Your task to perform on an android device: install app "Google Docs" Image 0: 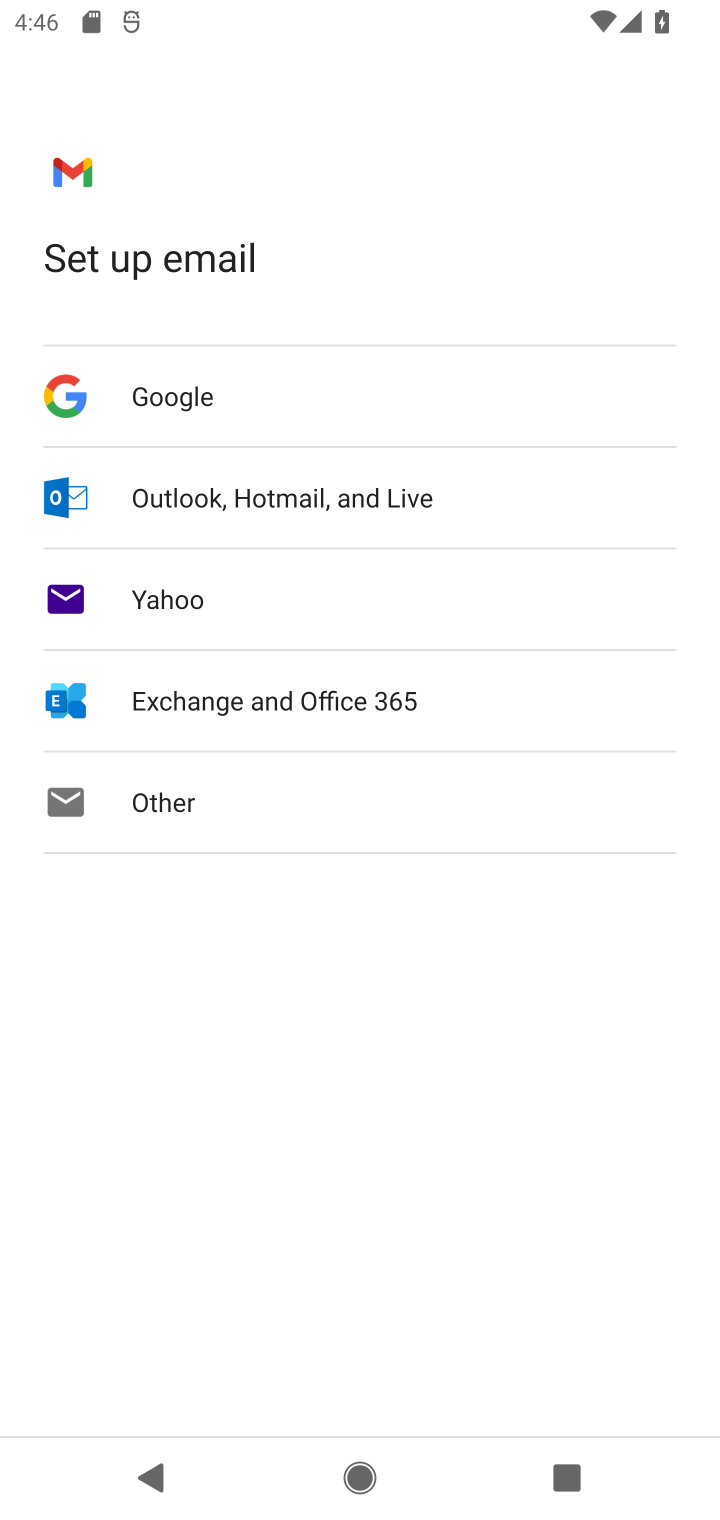
Step 0: press home button
Your task to perform on an android device: install app "Google Docs" Image 1: 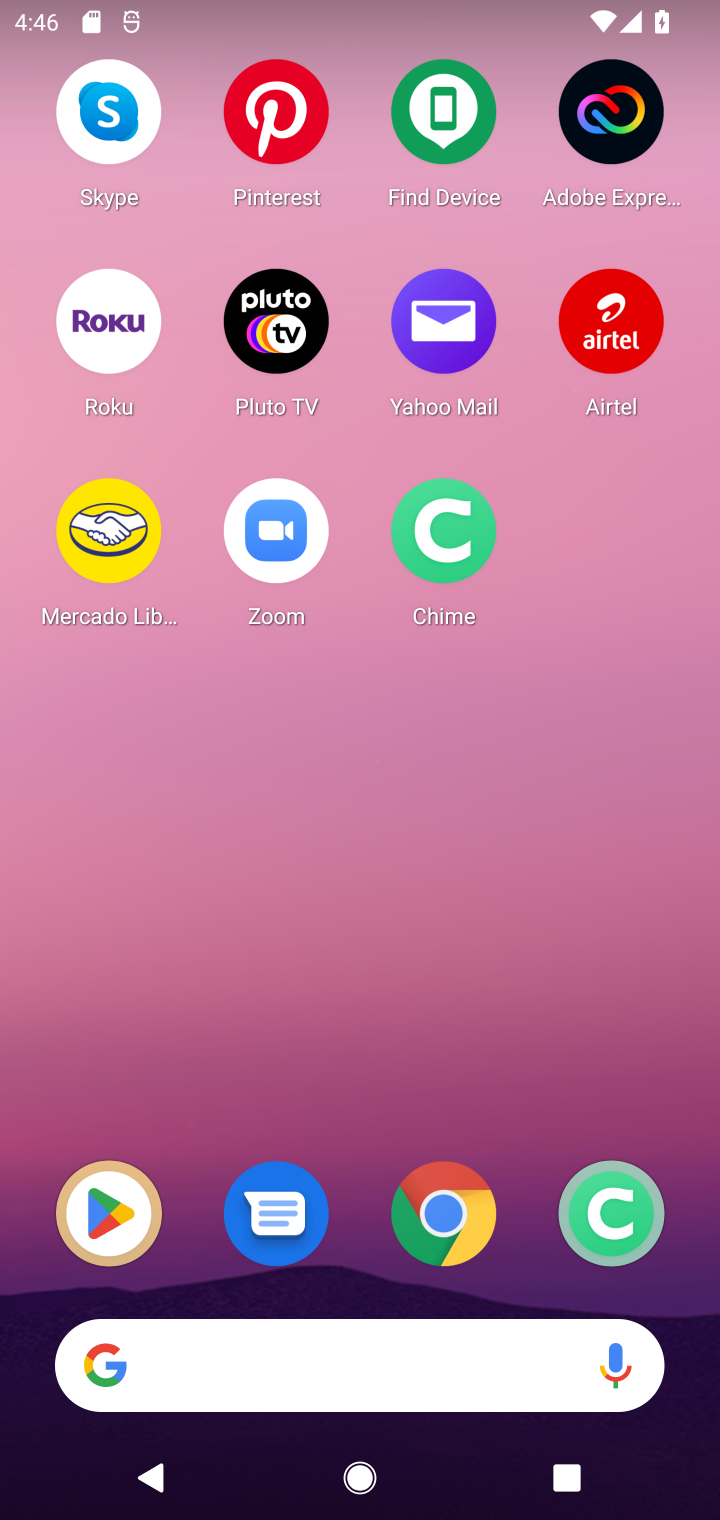
Step 1: drag from (485, 964) to (594, 0)
Your task to perform on an android device: install app "Google Docs" Image 2: 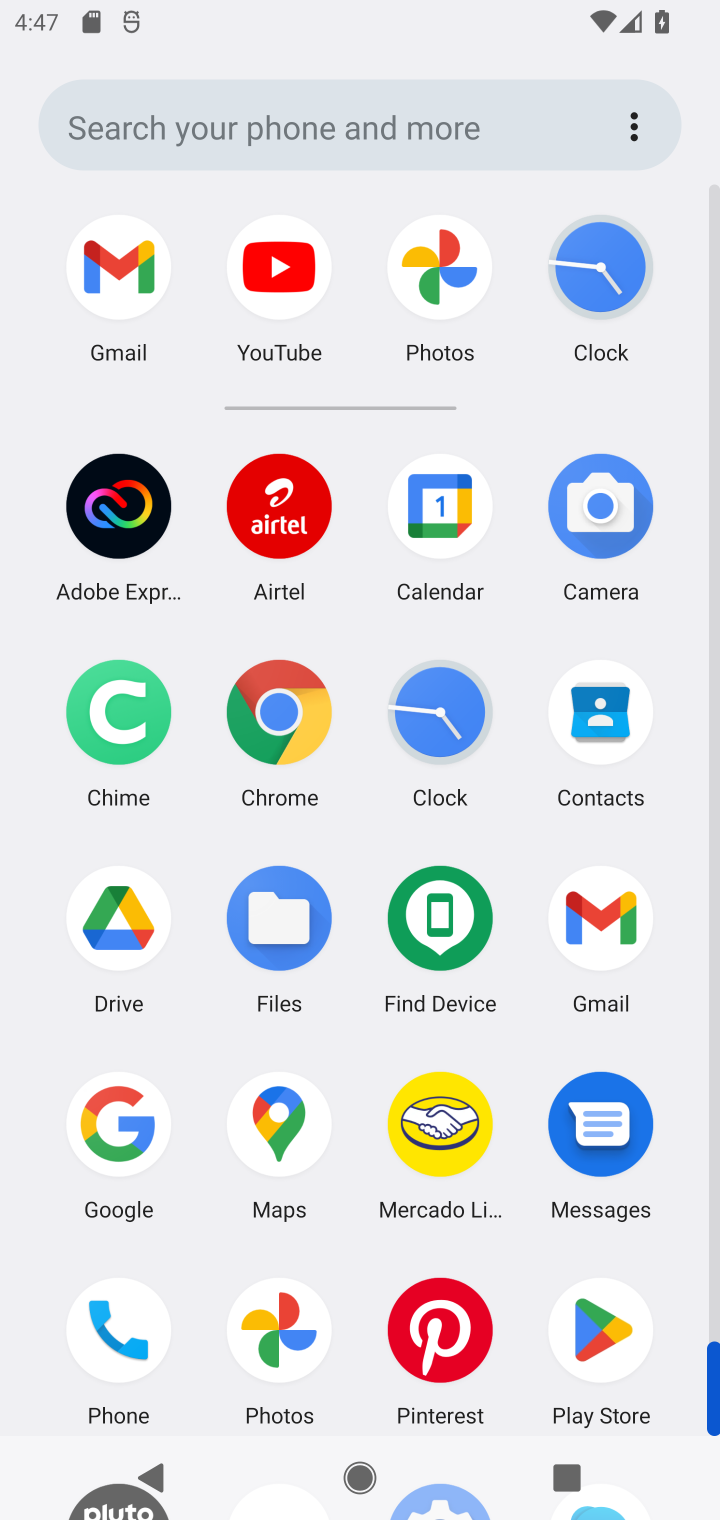
Step 2: click (581, 1318)
Your task to perform on an android device: install app "Google Docs" Image 3: 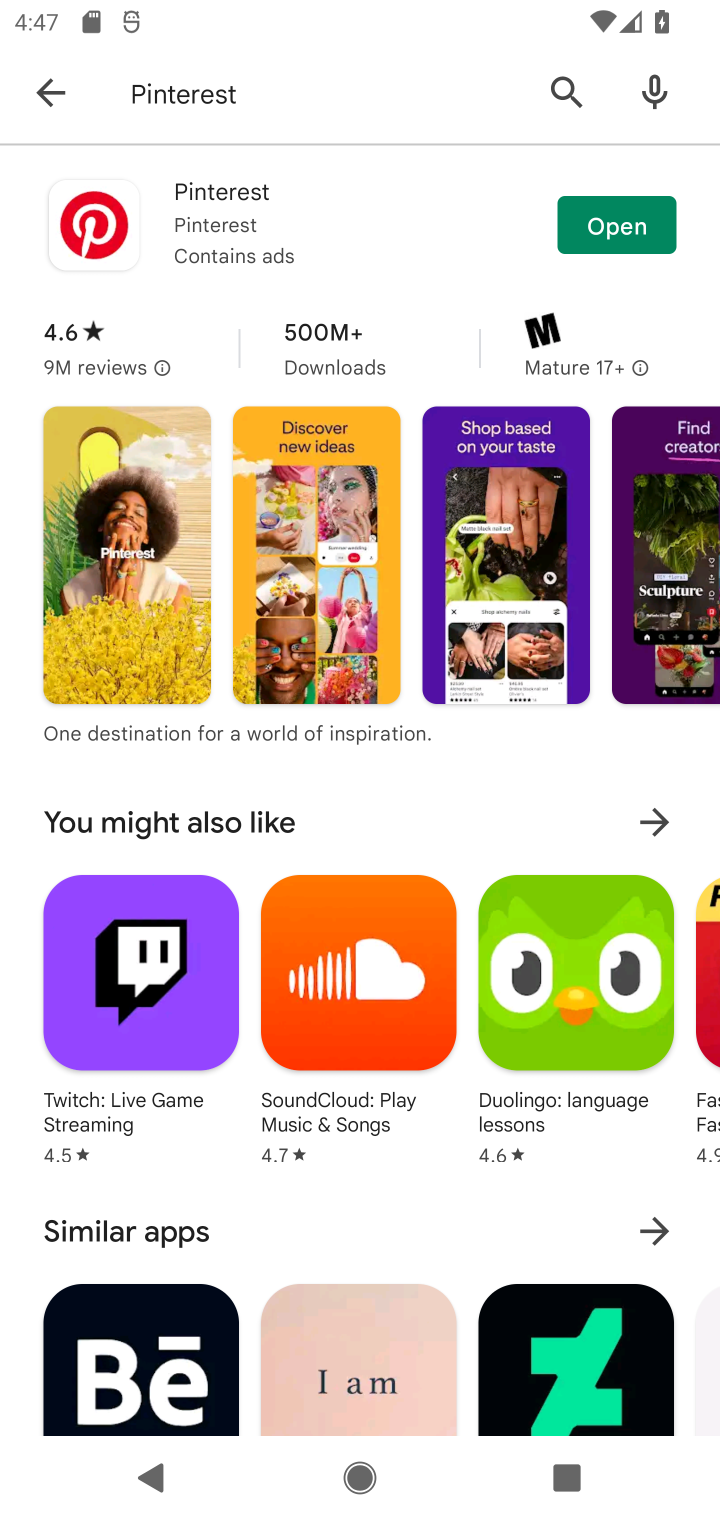
Step 3: click (315, 68)
Your task to perform on an android device: install app "Google Docs" Image 4: 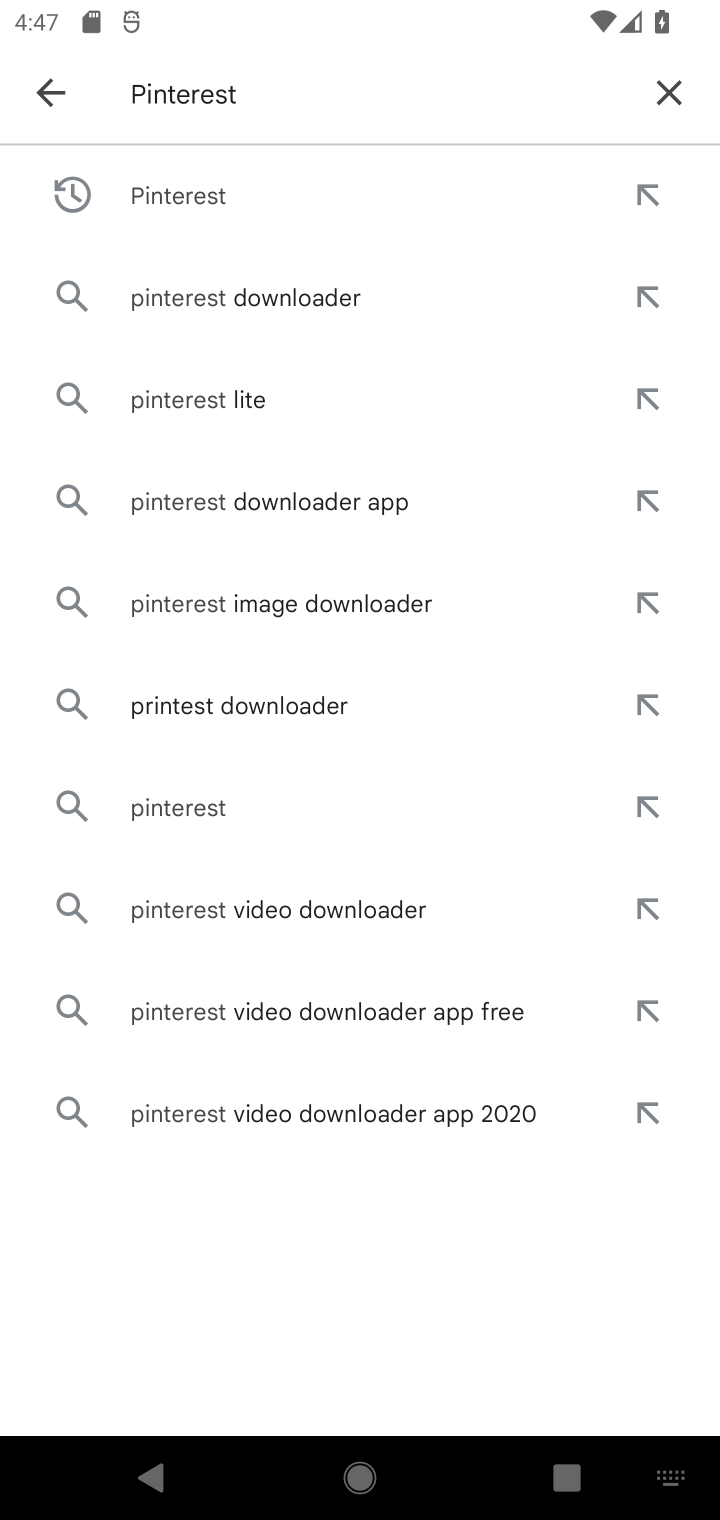
Step 4: click (682, 97)
Your task to perform on an android device: install app "Google Docs" Image 5: 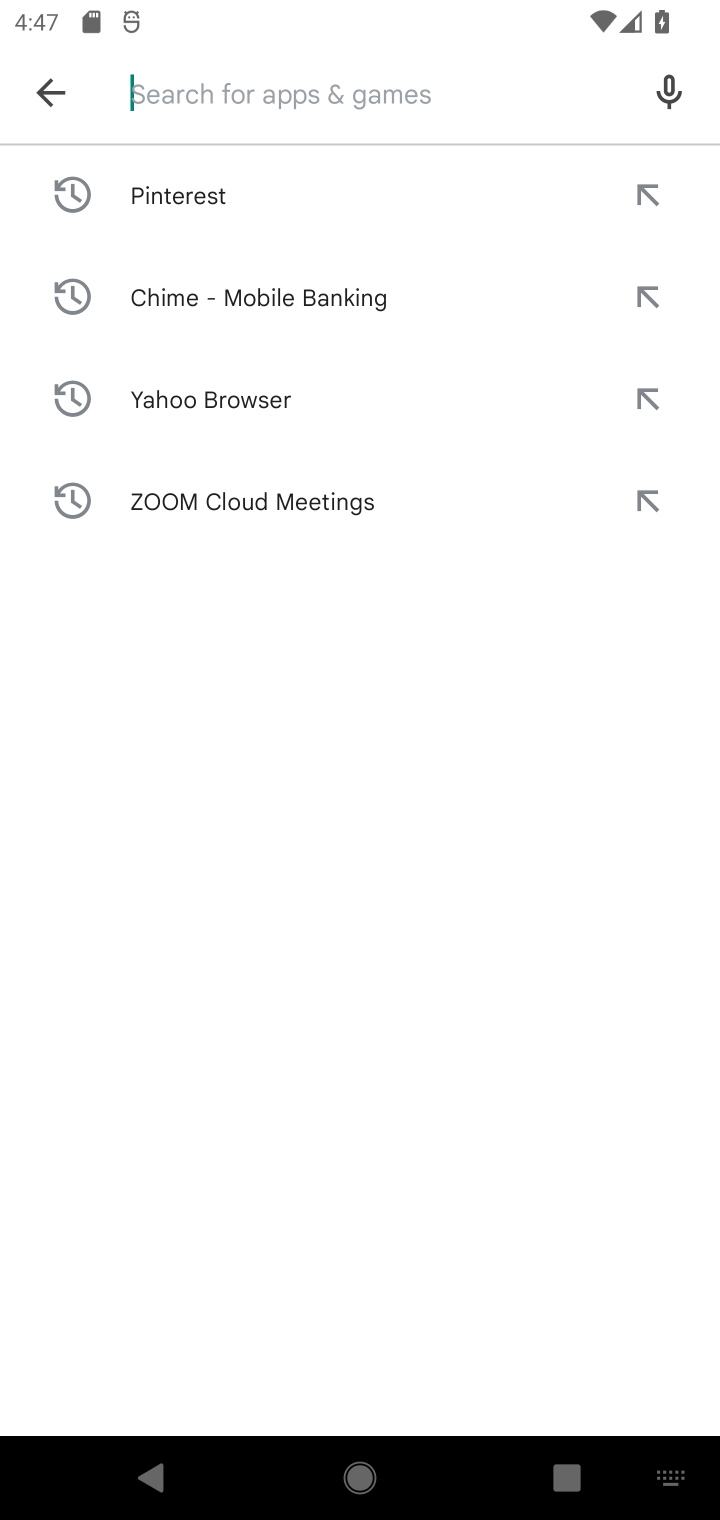
Step 5: type "Google Docs"
Your task to perform on an android device: install app "Google Docs" Image 6: 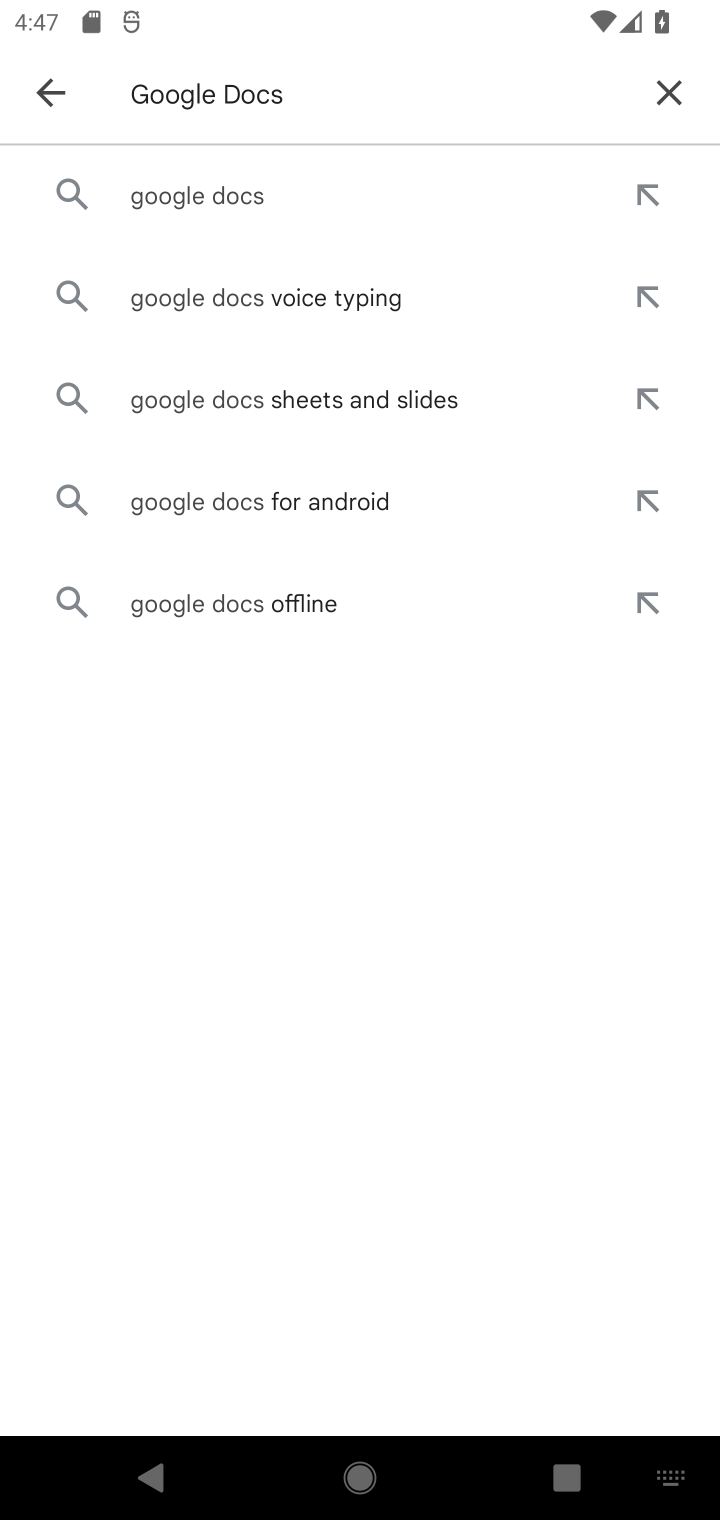
Step 6: press enter
Your task to perform on an android device: install app "Google Docs" Image 7: 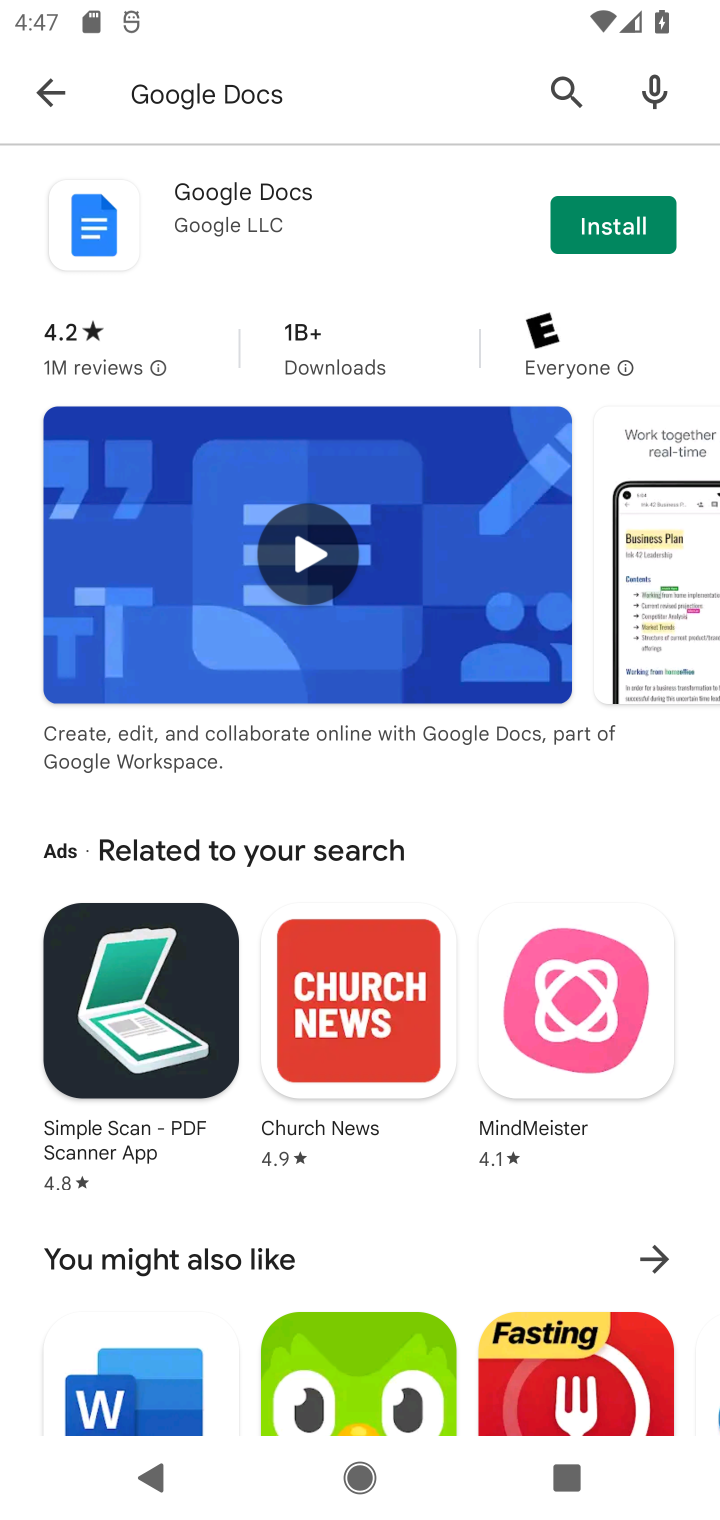
Step 7: click (609, 226)
Your task to perform on an android device: install app "Google Docs" Image 8: 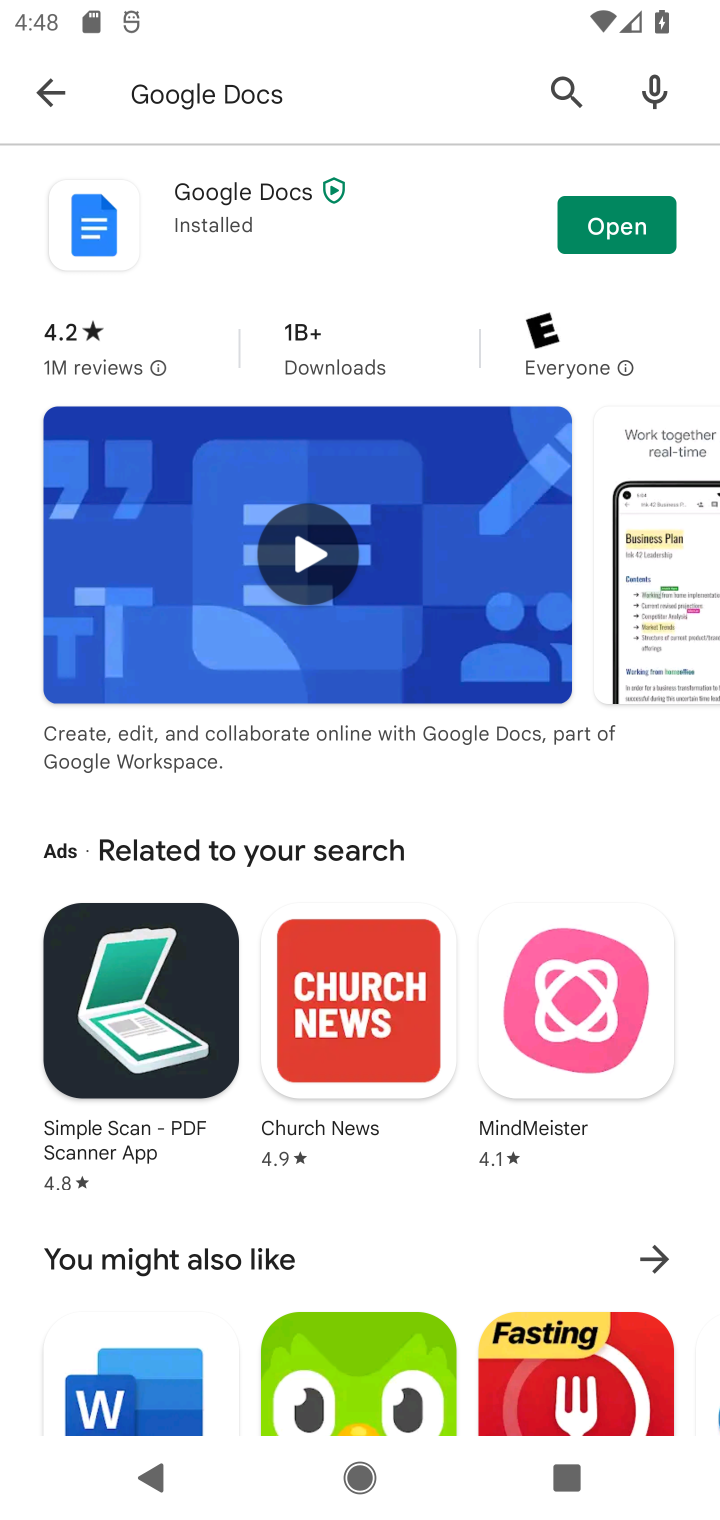
Step 8: task complete